Your task to perform on an android device: install app "Messenger Lite" Image 0: 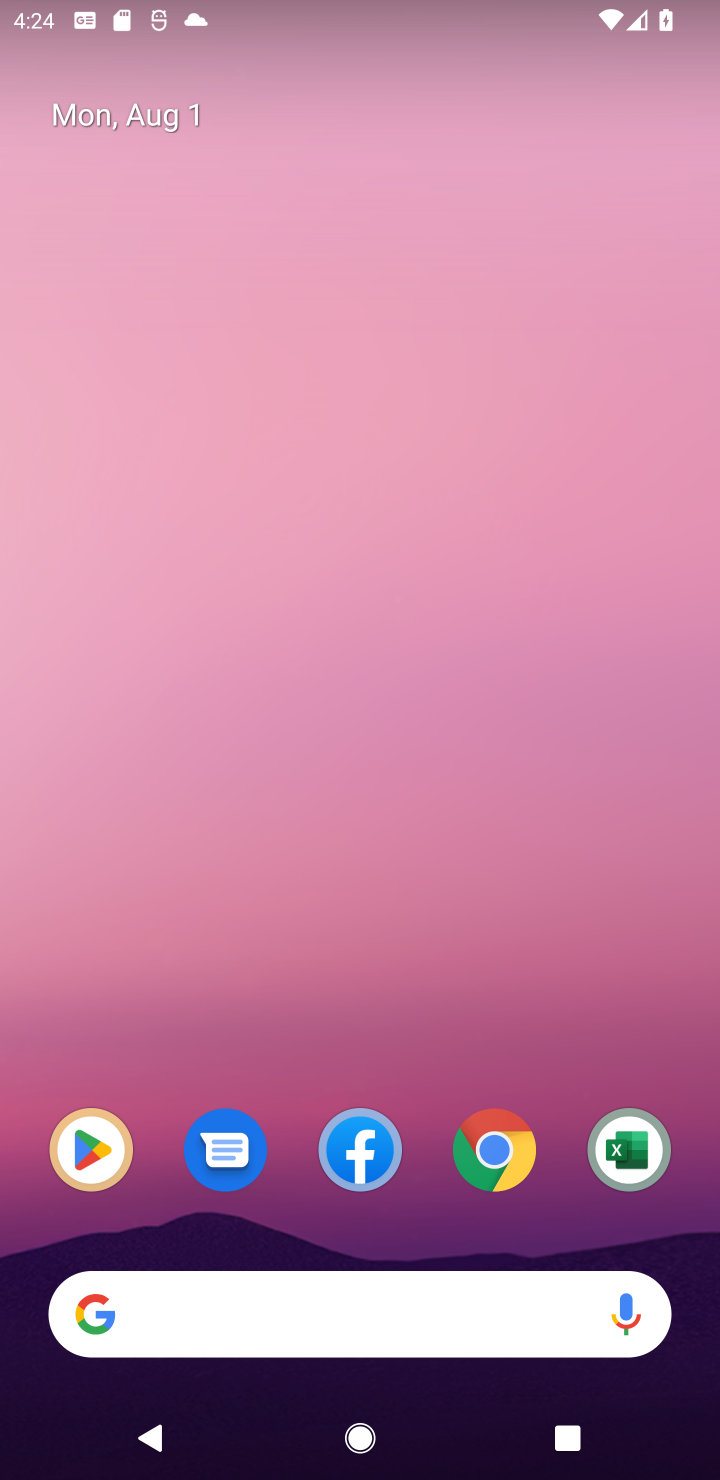
Step 0: drag from (308, 174) to (348, 60)
Your task to perform on an android device: install app "Messenger Lite" Image 1: 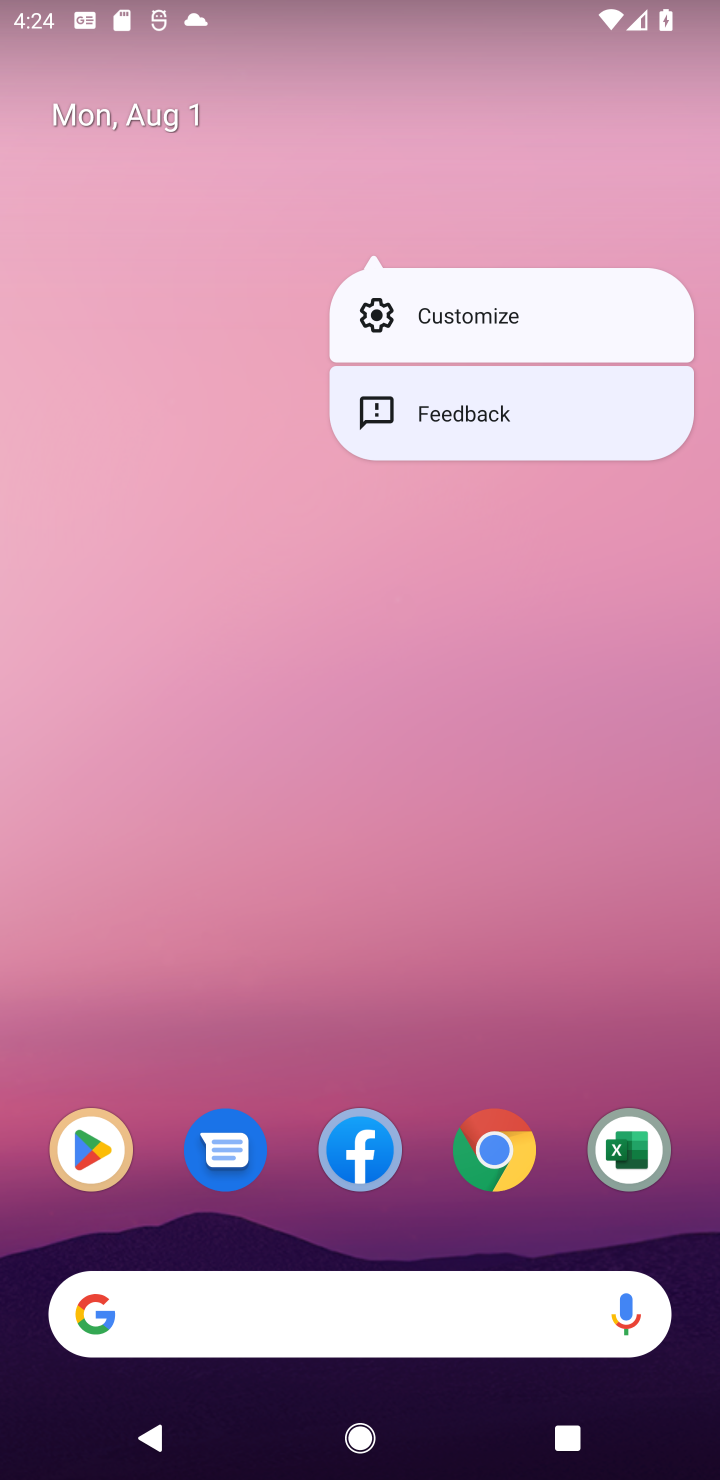
Step 1: click (274, 953)
Your task to perform on an android device: install app "Messenger Lite" Image 2: 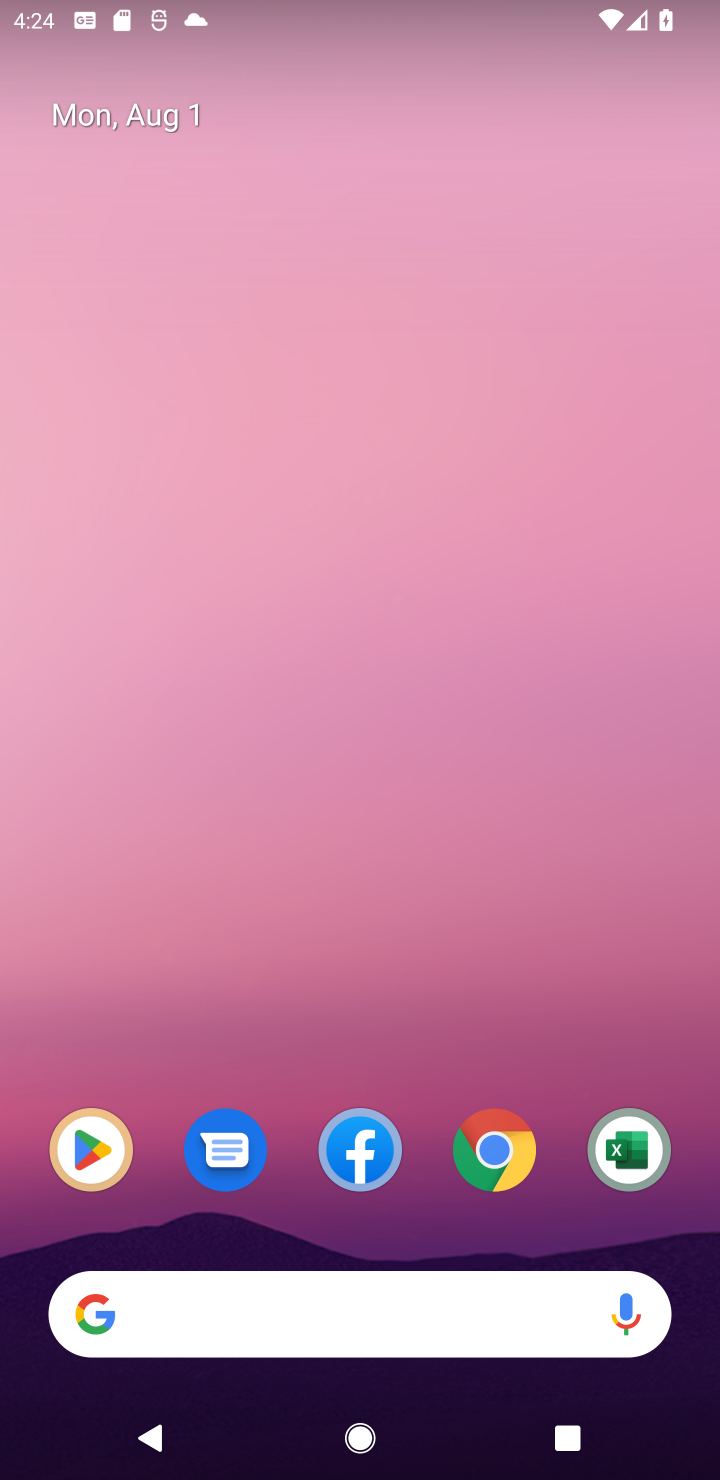
Step 2: drag from (281, 986) to (293, 65)
Your task to perform on an android device: install app "Messenger Lite" Image 3: 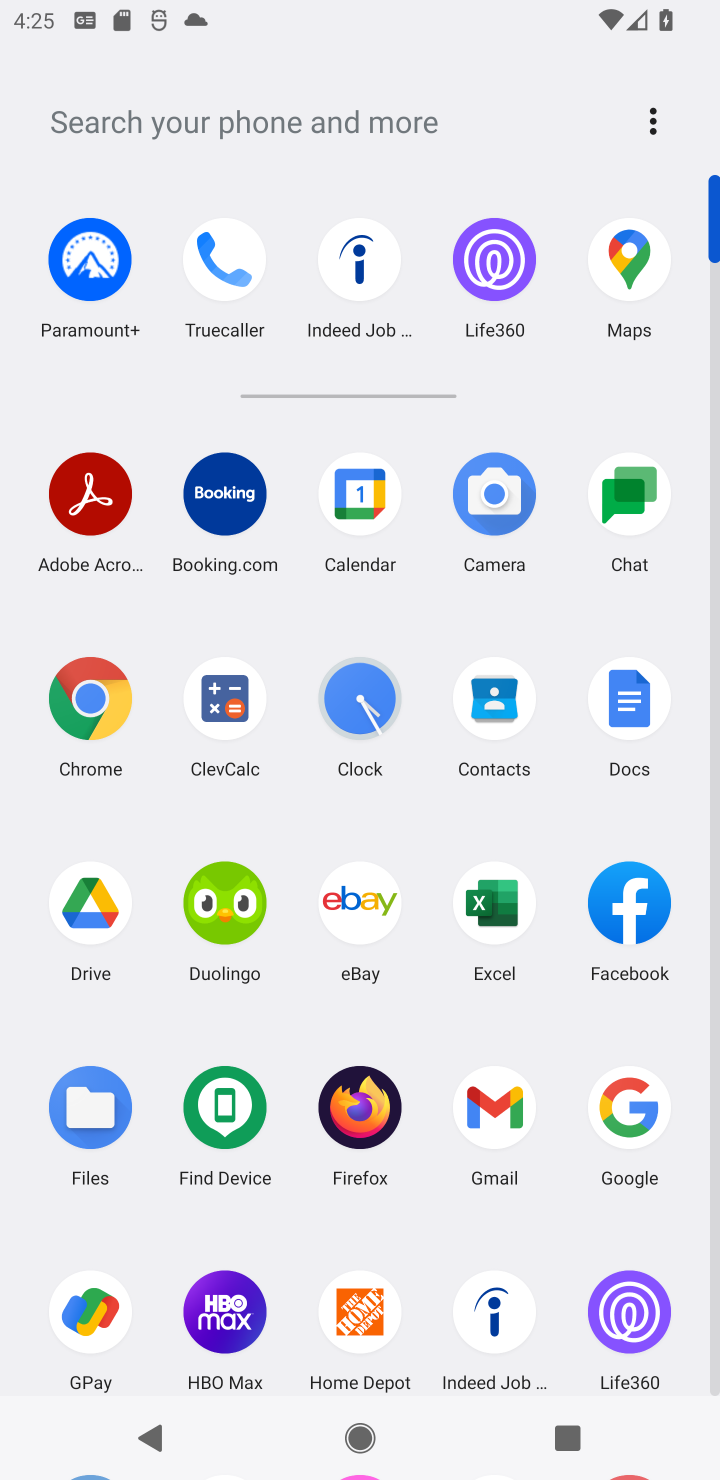
Step 3: click (354, 1460)
Your task to perform on an android device: install app "Messenger Lite" Image 4: 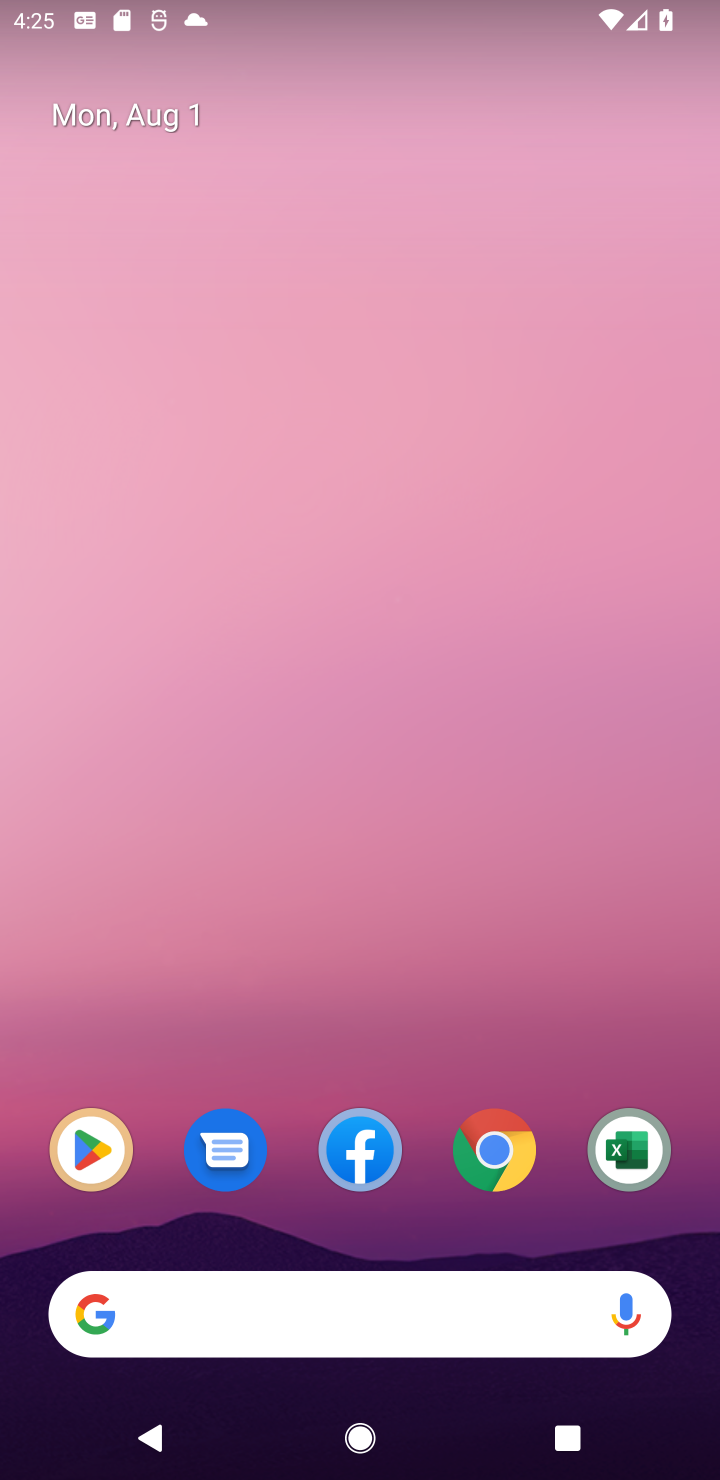
Step 4: click (96, 1176)
Your task to perform on an android device: install app "Messenger Lite" Image 5: 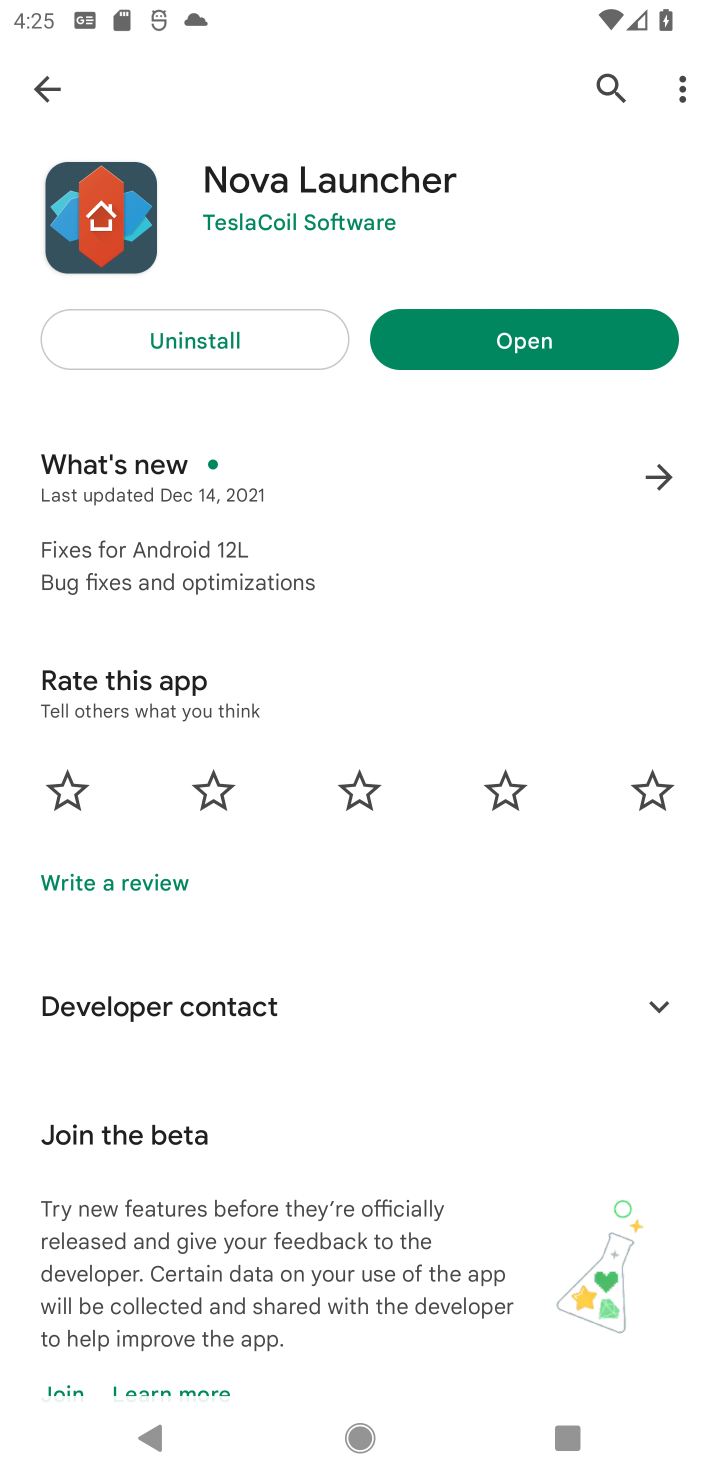
Step 5: click (607, 73)
Your task to perform on an android device: install app "Messenger Lite" Image 6: 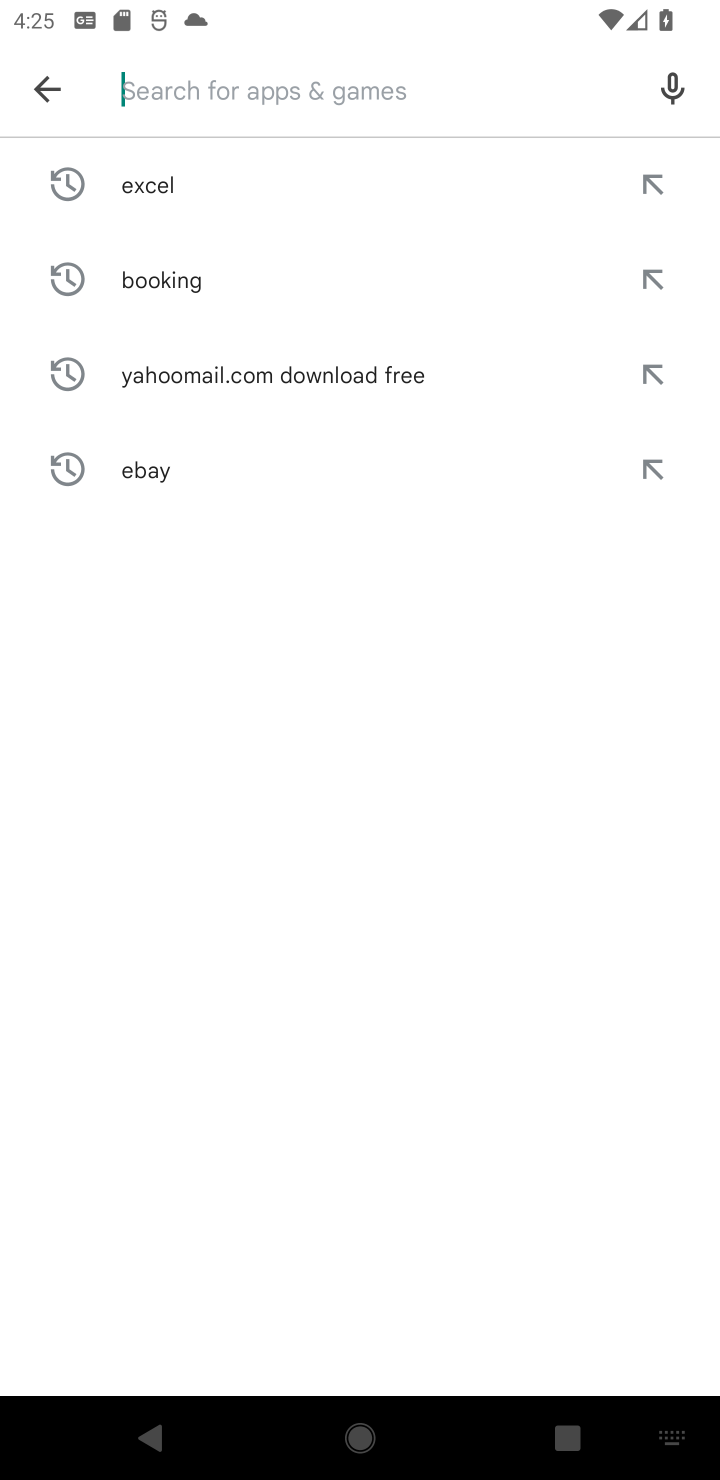
Step 6: type "messenger"
Your task to perform on an android device: install app "Messenger Lite" Image 7: 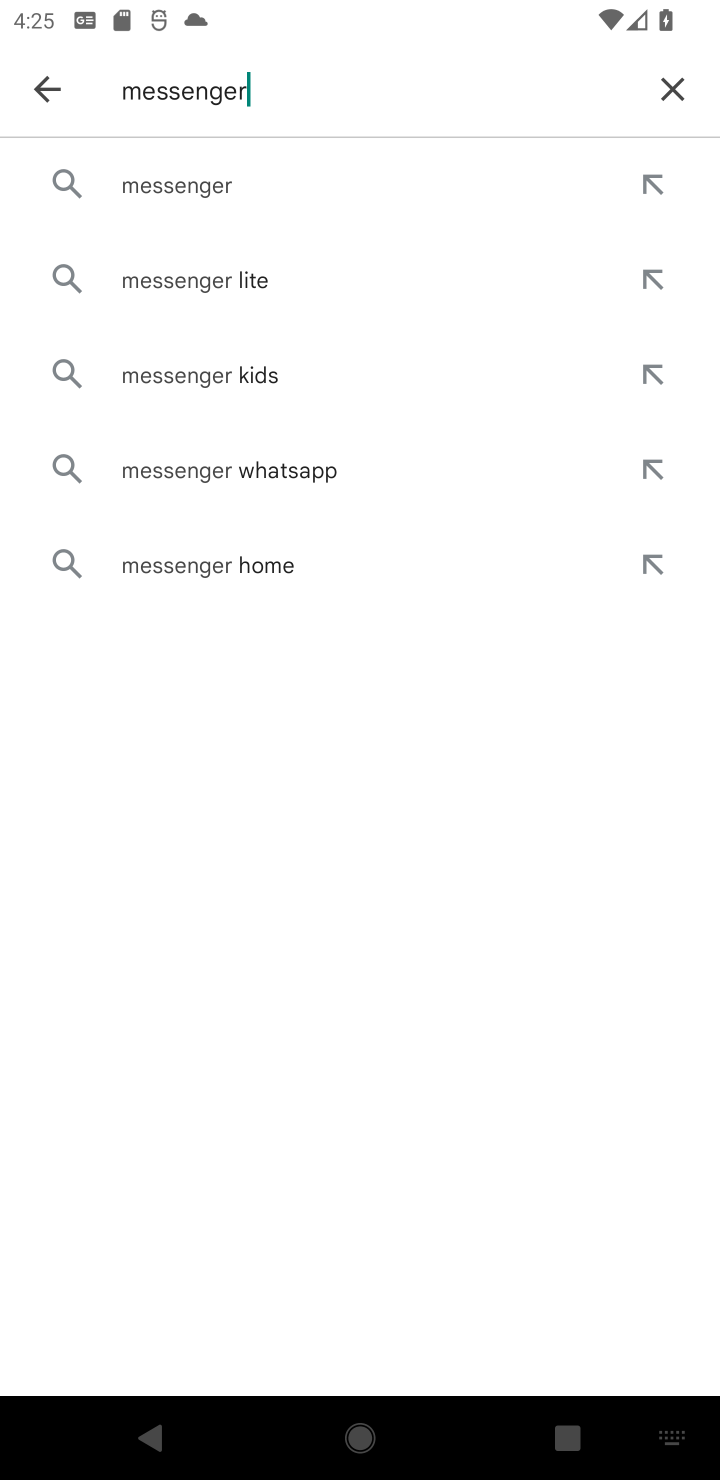
Step 7: click (315, 268)
Your task to perform on an android device: install app "Messenger Lite" Image 8: 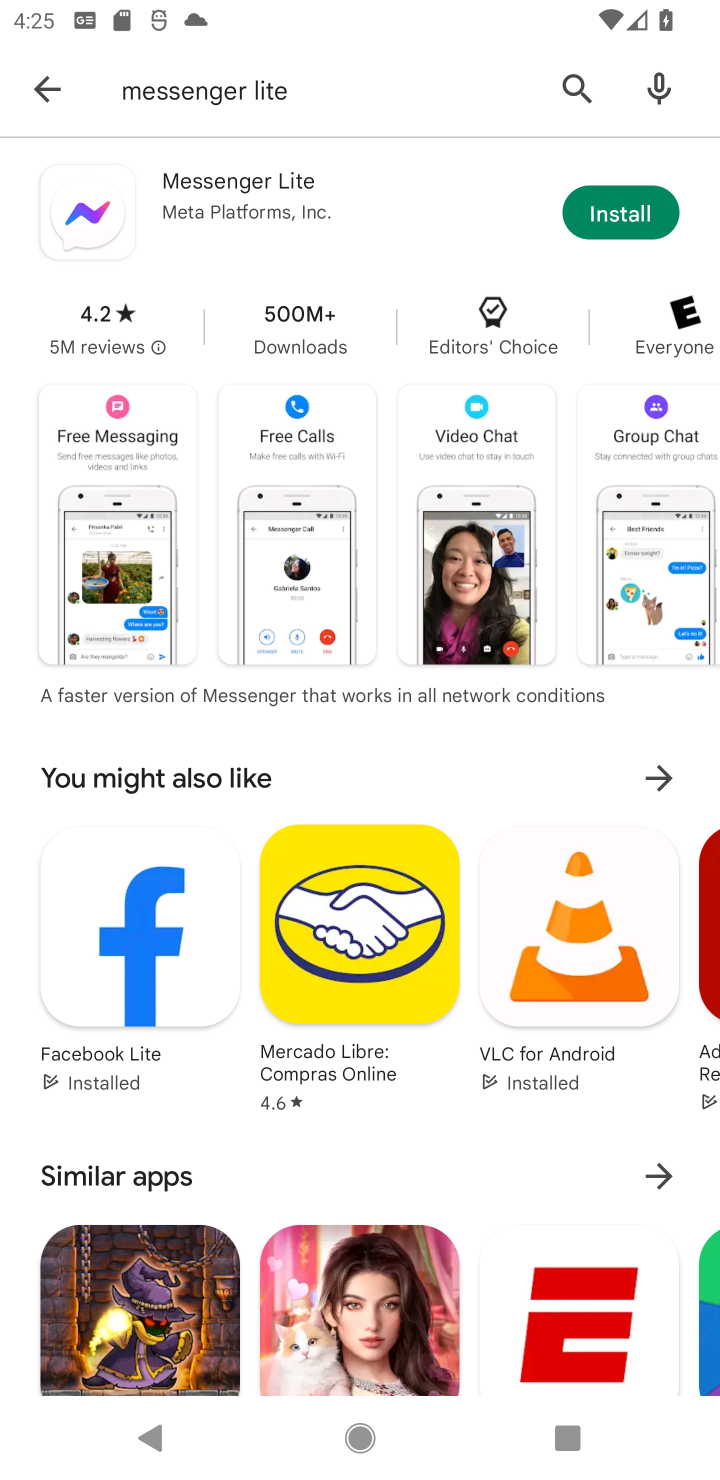
Step 8: click (634, 221)
Your task to perform on an android device: install app "Messenger Lite" Image 9: 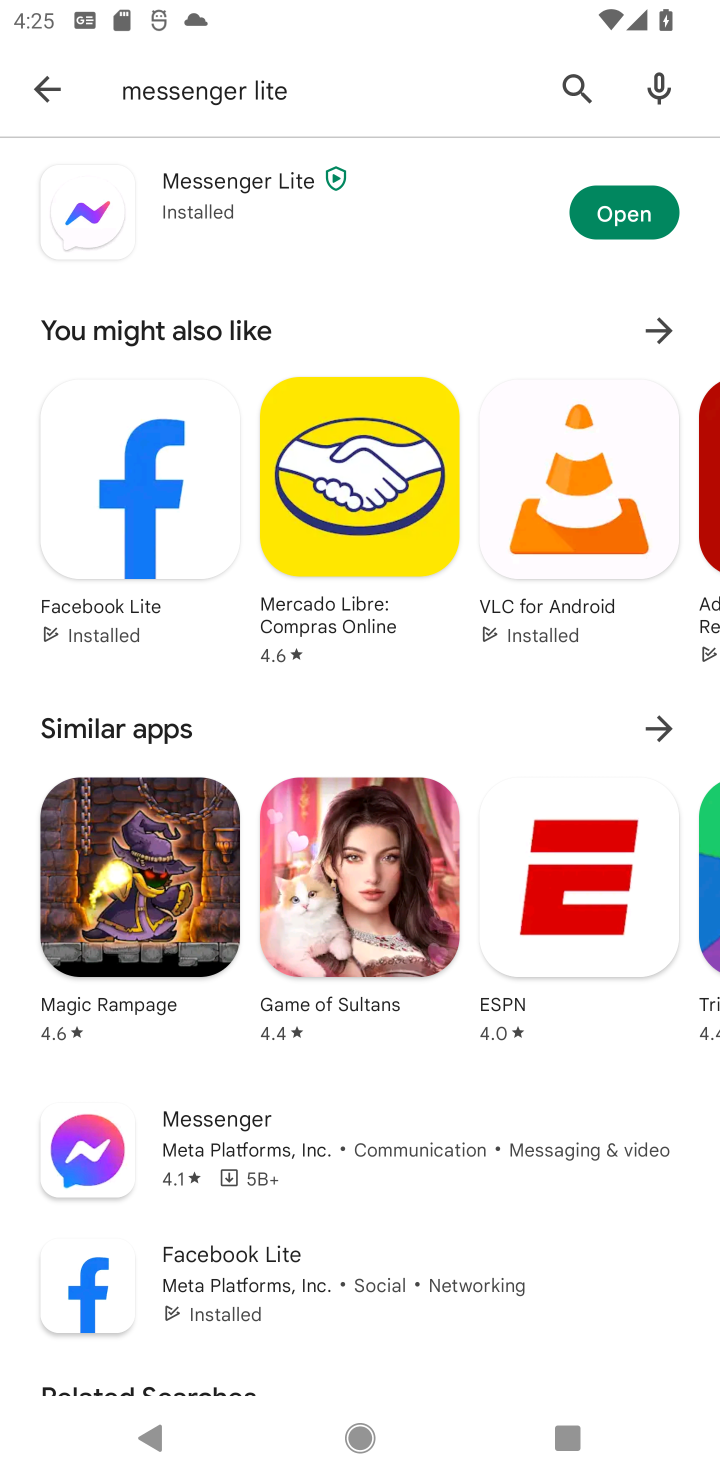
Step 9: task complete